Your task to perform on an android device: toggle sleep mode Image 0: 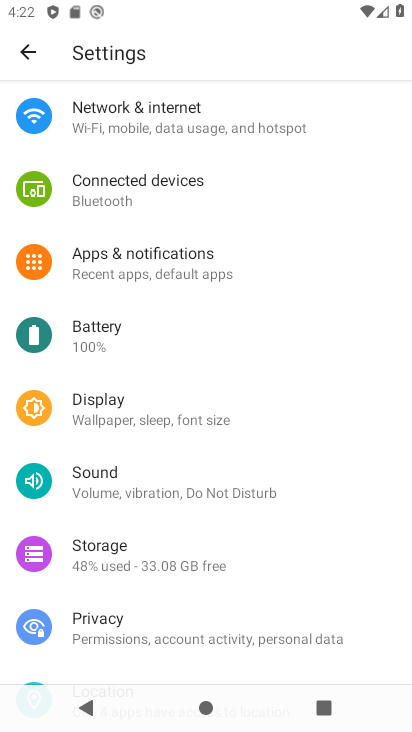
Step 0: click (131, 408)
Your task to perform on an android device: toggle sleep mode Image 1: 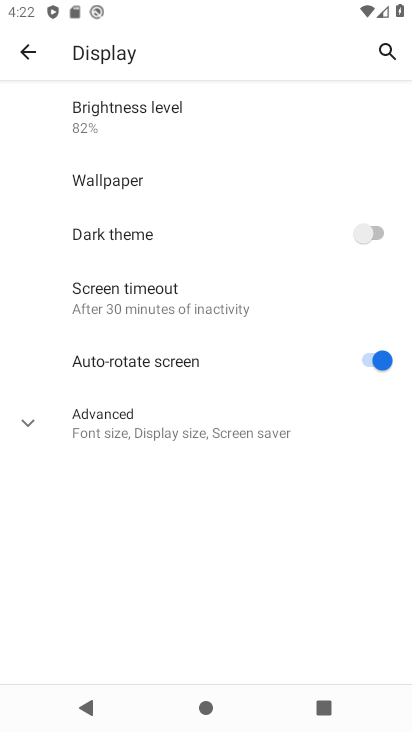
Step 1: click (216, 418)
Your task to perform on an android device: toggle sleep mode Image 2: 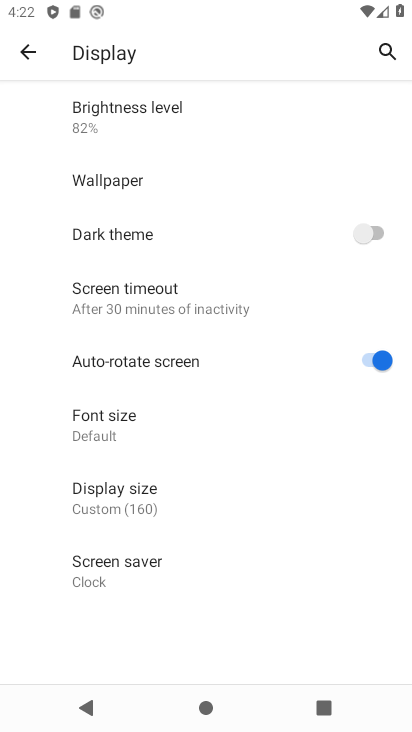
Step 2: task complete